Your task to perform on an android device: What's the weather going to be tomorrow? Image 0: 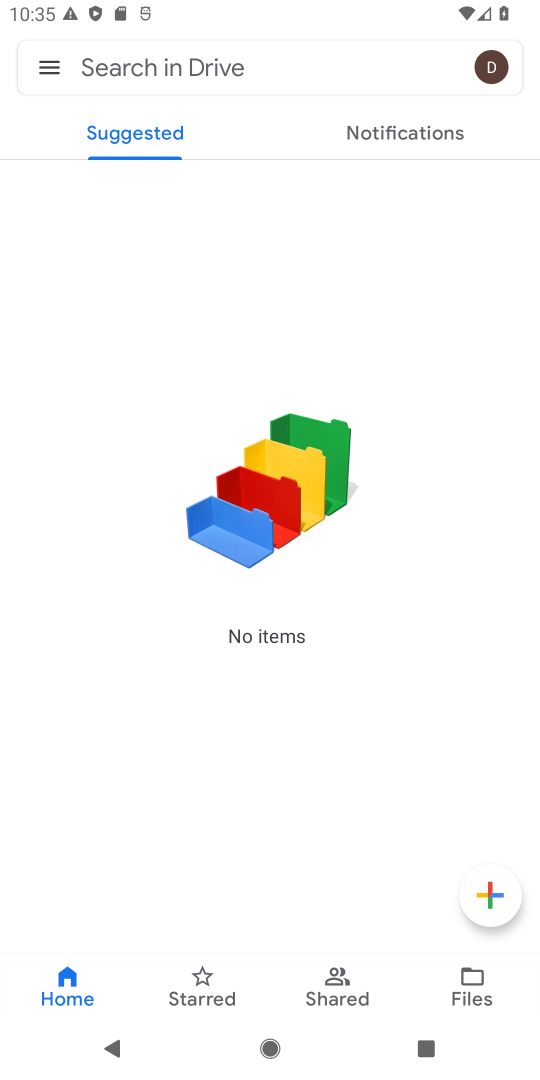
Step 0: press back button
Your task to perform on an android device: What's the weather going to be tomorrow? Image 1: 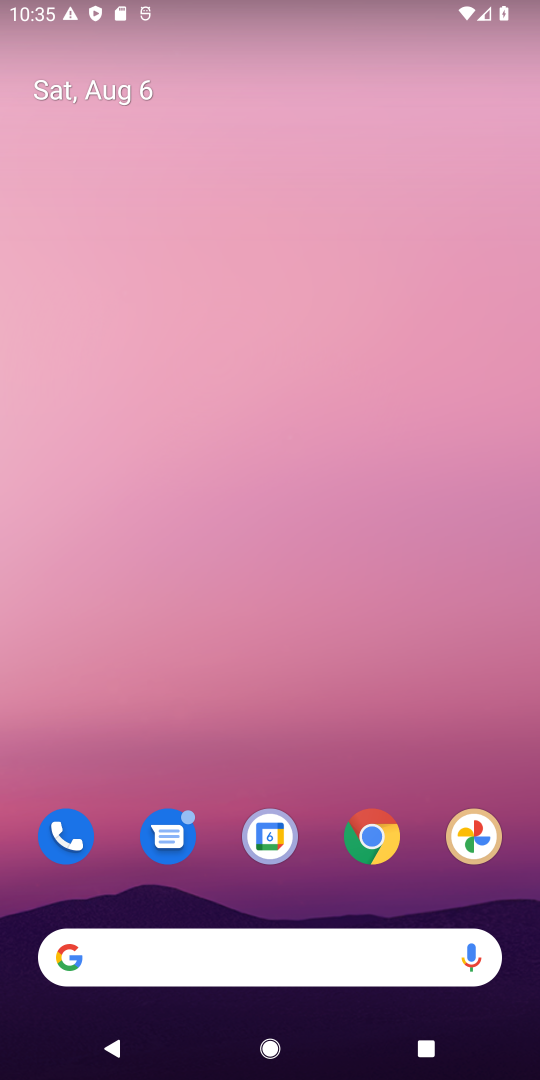
Step 1: click (237, 956)
Your task to perform on an android device: What's the weather going to be tomorrow? Image 2: 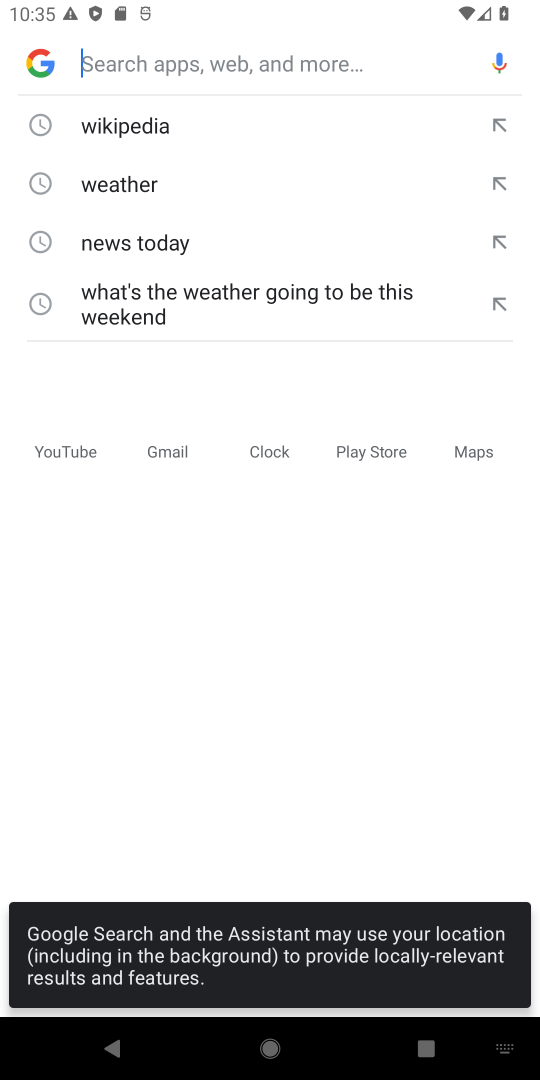
Step 2: drag from (237, 956) to (131, 182)
Your task to perform on an android device: What's the weather going to be tomorrow? Image 3: 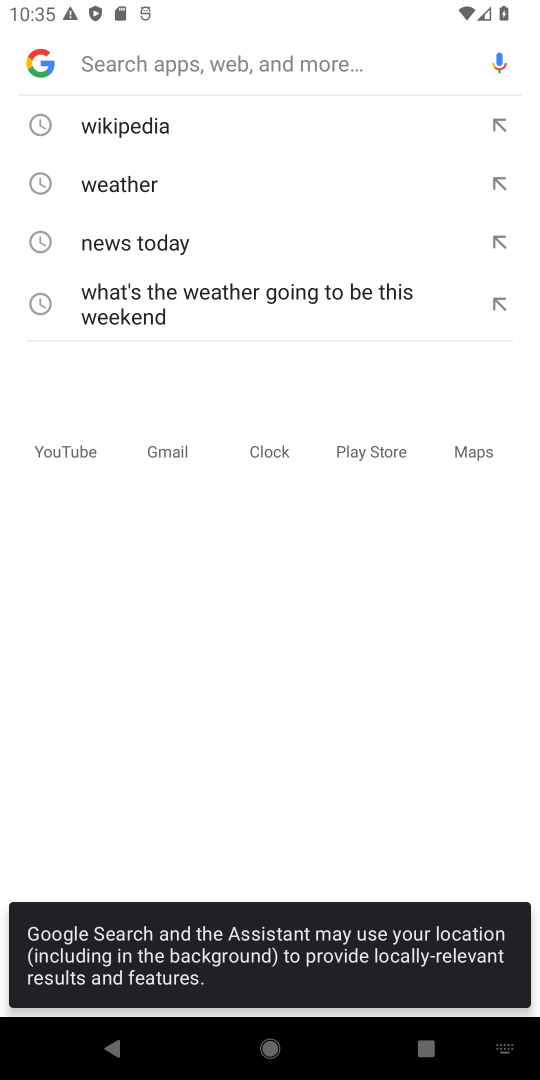
Step 3: click (131, 182)
Your task to perform on an android device: What's the weather going to be tomorrow? Image 4: 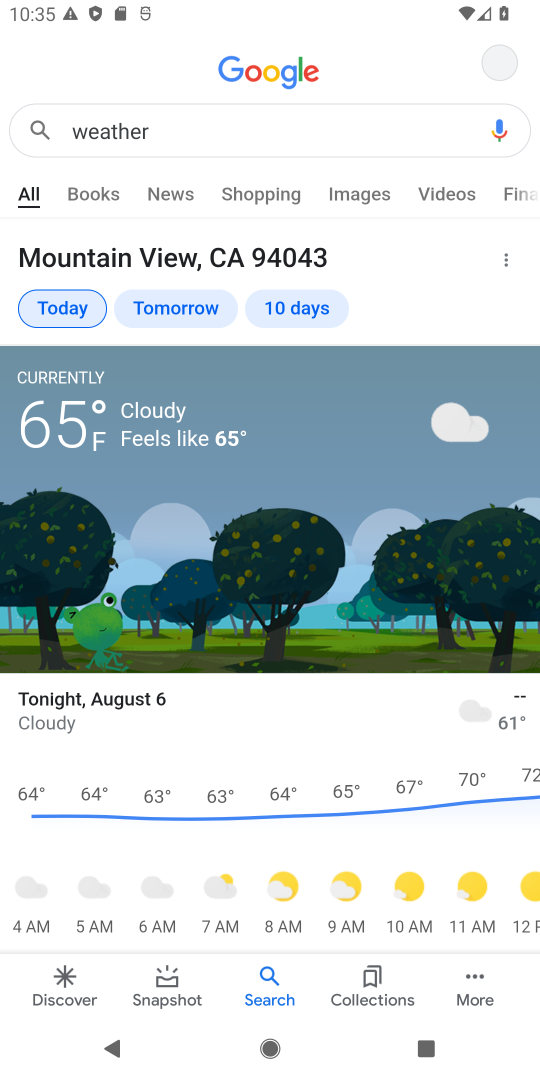
Step 4: click (179, 301)
Your task to perform on an android device: What's the weather going to be tomorrow? Image 5: 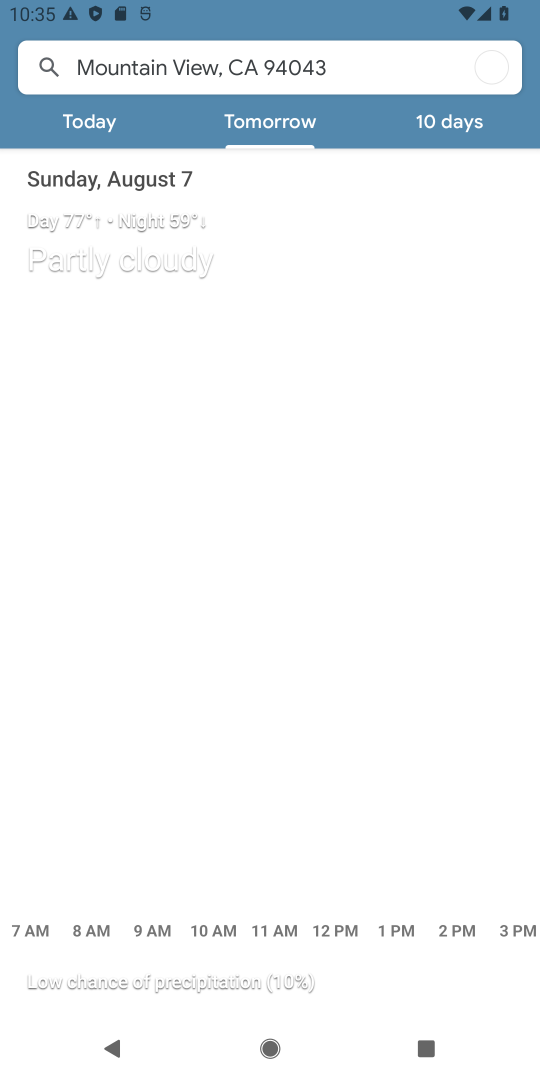
Step 5: task complete